Your task to perform on an android device: Search for Italian restaurants on Maps Image 0: 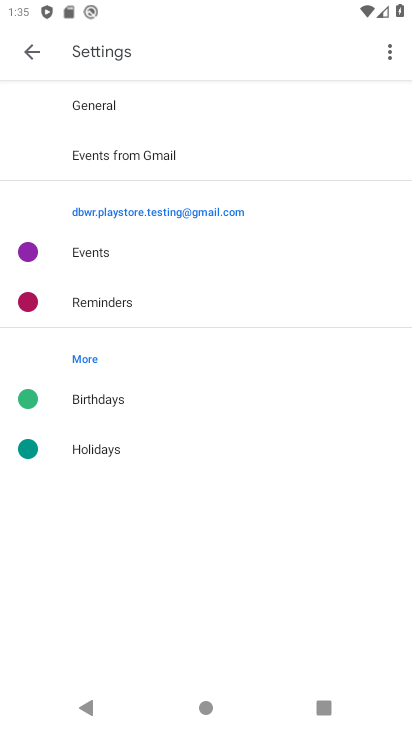
Step 0: press home button
Your task to perform on an android device: Search for Italian restaurants on Maps Image 1: 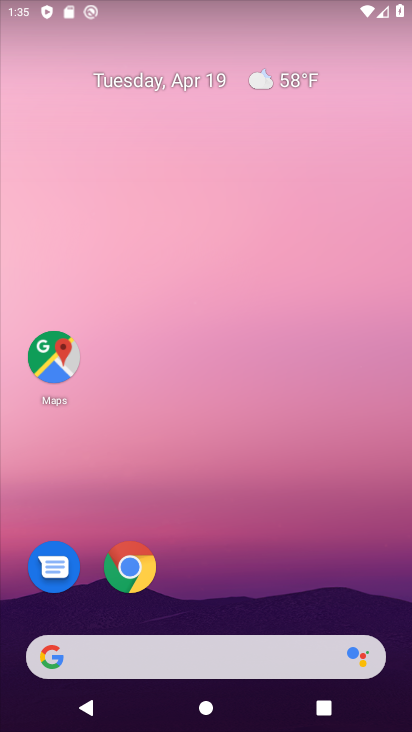
Step 1: click (64, 364)
Your task to perform on an android device: Search for Italian restaurants on Maps Image 2: 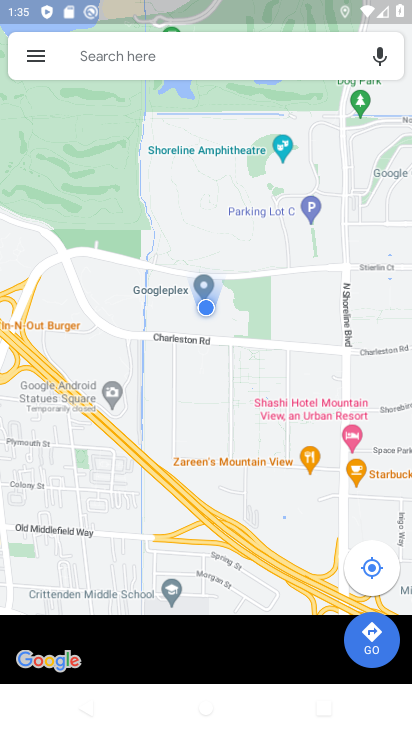
Step 2: click (163, 56)
Your task to perform on an android device: Search for Italian restaurants on Maps Image 3: 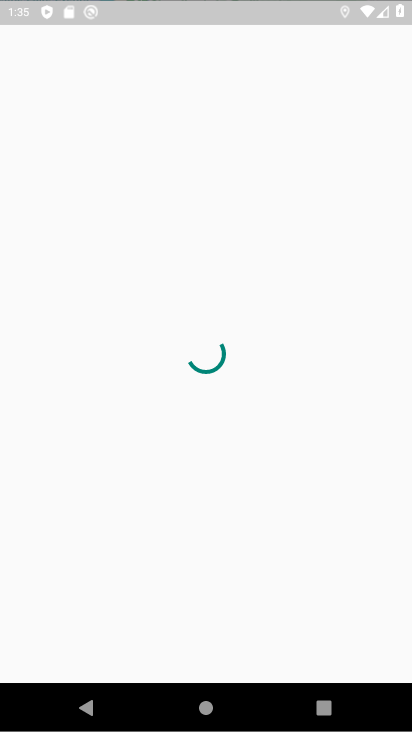
Step 3: drag from (122, 56) to (164, 56)
Your task to perform on an android device: Search for Italian restaurants on Maps Image 4: 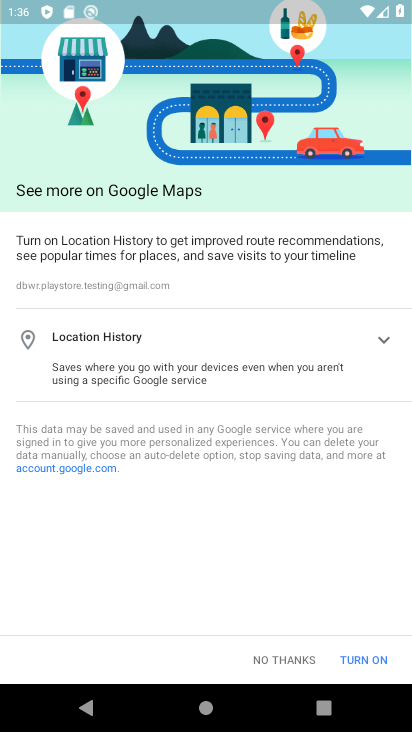
Step 4: press back button
Your task to perform on an android device: Search for Italian restaurants on Maps Image 5: 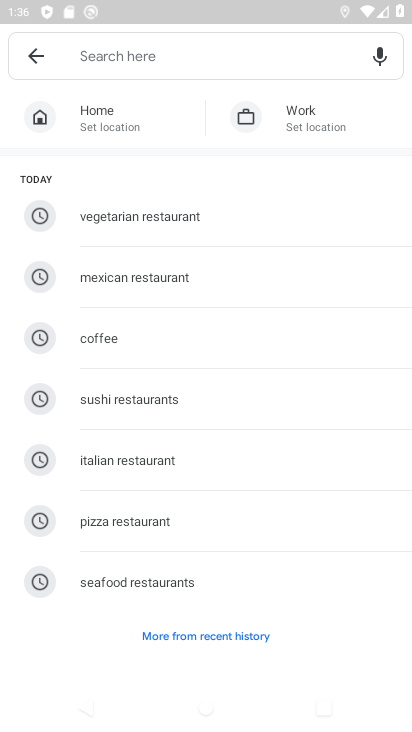
Step 5: click (109, 56)
Your task to perform on an android device: Search for Italian restaurants on Maps Image 6: 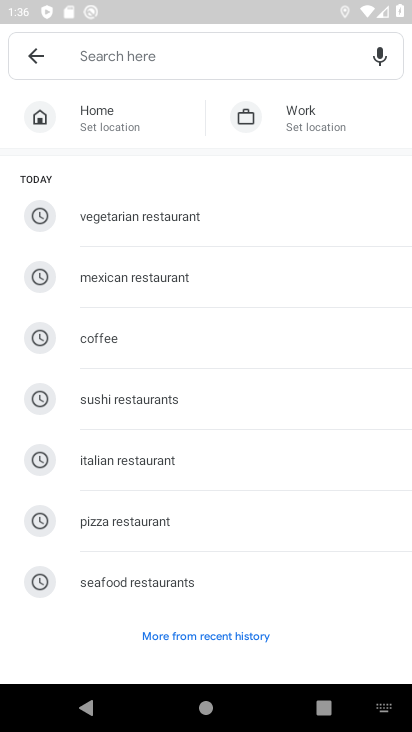
Step 6: click (122, 451)
Your task to perform on an android device: Search for Italian restaurants on Maps Image 7: 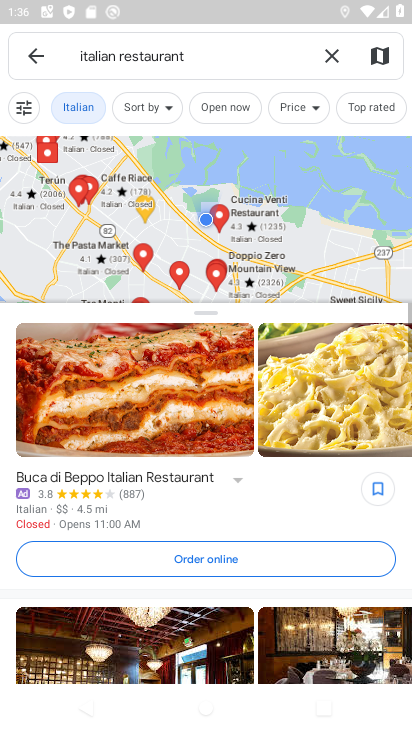
Step 7: task complete